Your task to perform on an android device: add a contact Image 0: 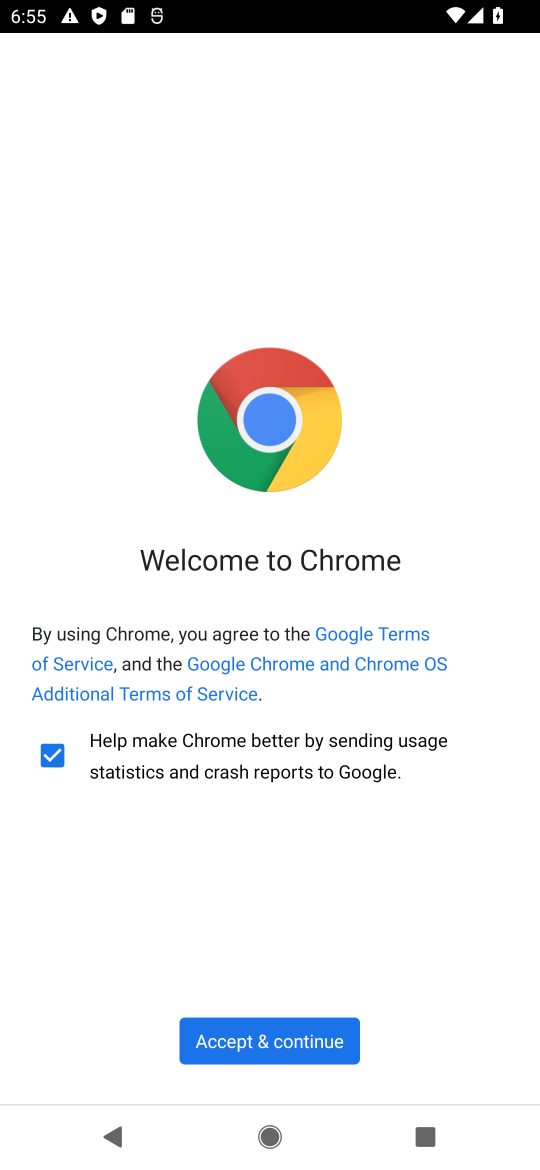
Step 0: press home button
Your task to perform on an android device: add a contact Image 1: 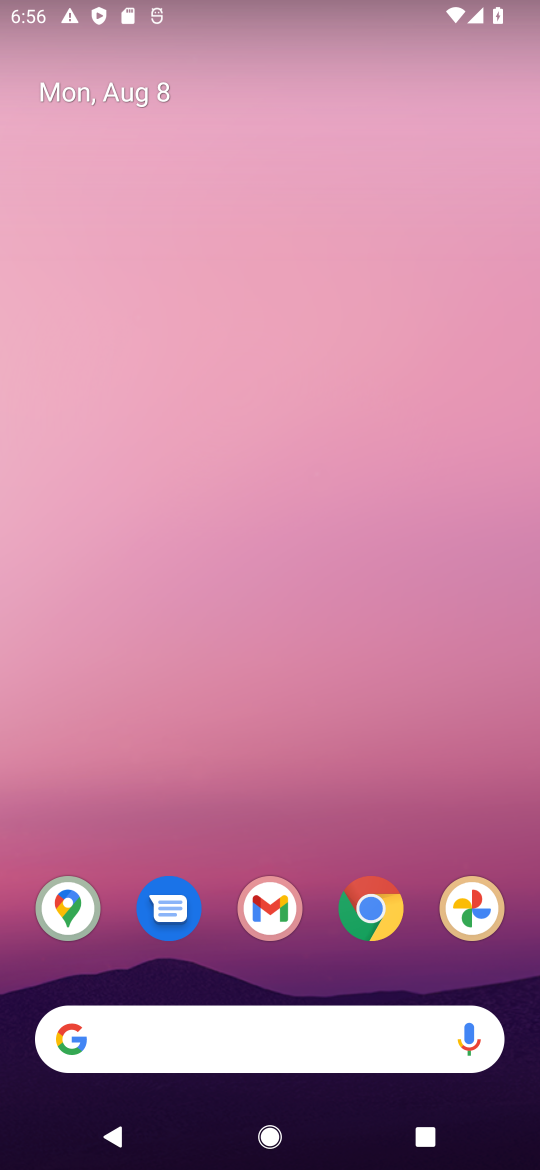
Step 1: drag from (232, 862) to (194, 246)
Your task to perform on an android device: add a contact Image 2: 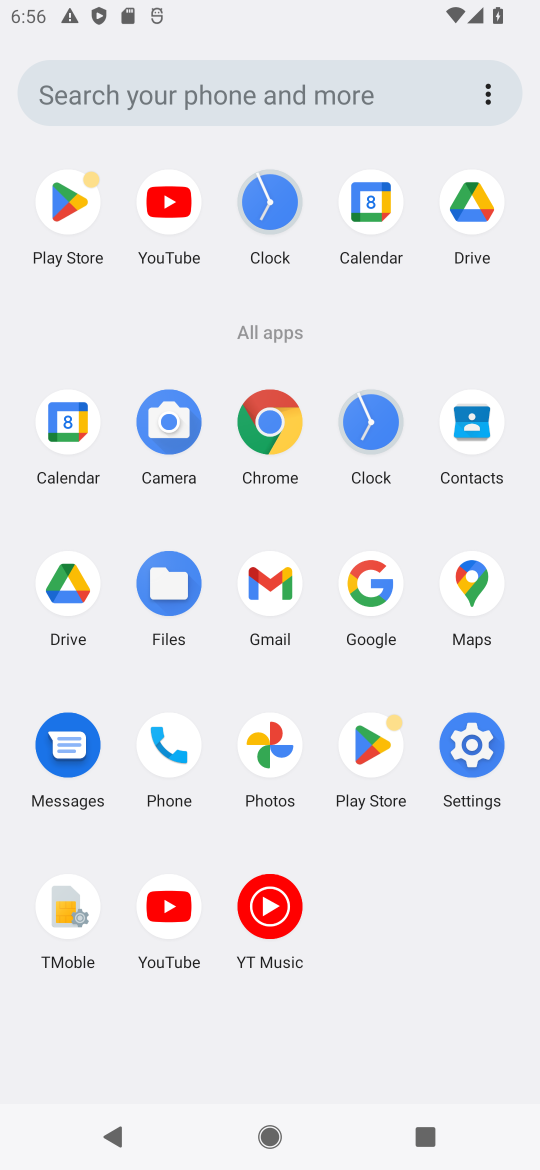
Step 2: click (482, 441)
Your task to perform on an android device: add a contact Image 3: 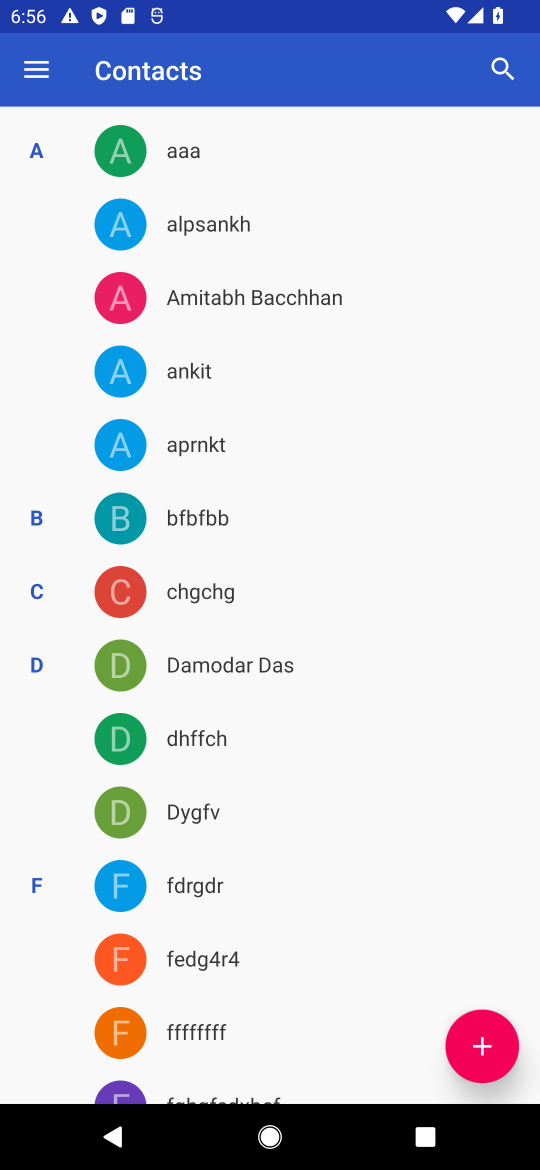
Step 3: click (476, 1060)
Your task to perform on an android device: add a contact Image 4: 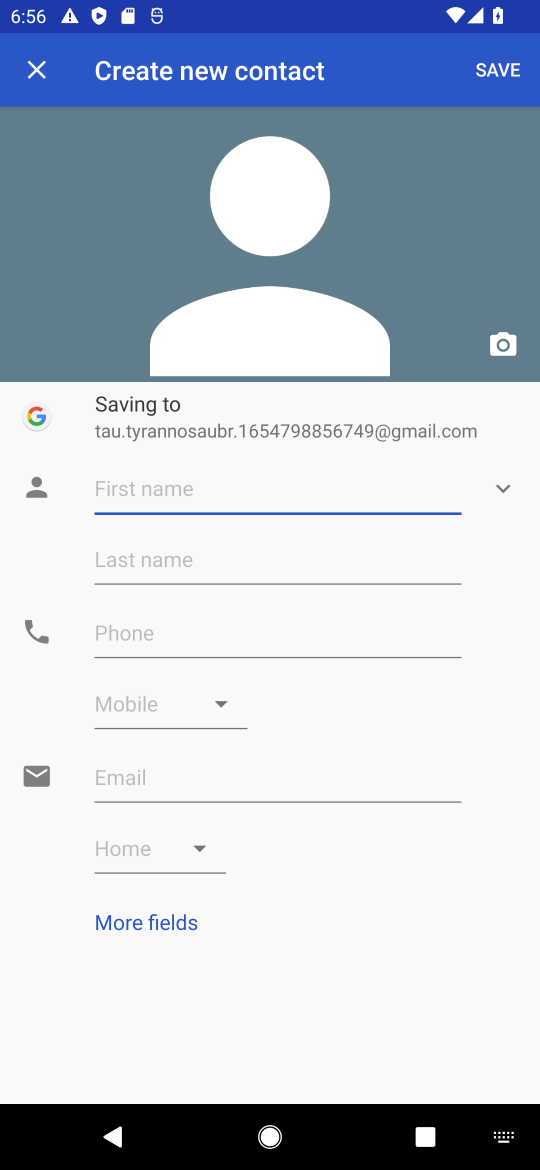
Step 4: type "poiuytgfrd"
Your task to perform on an android device: add a contact Image 5: 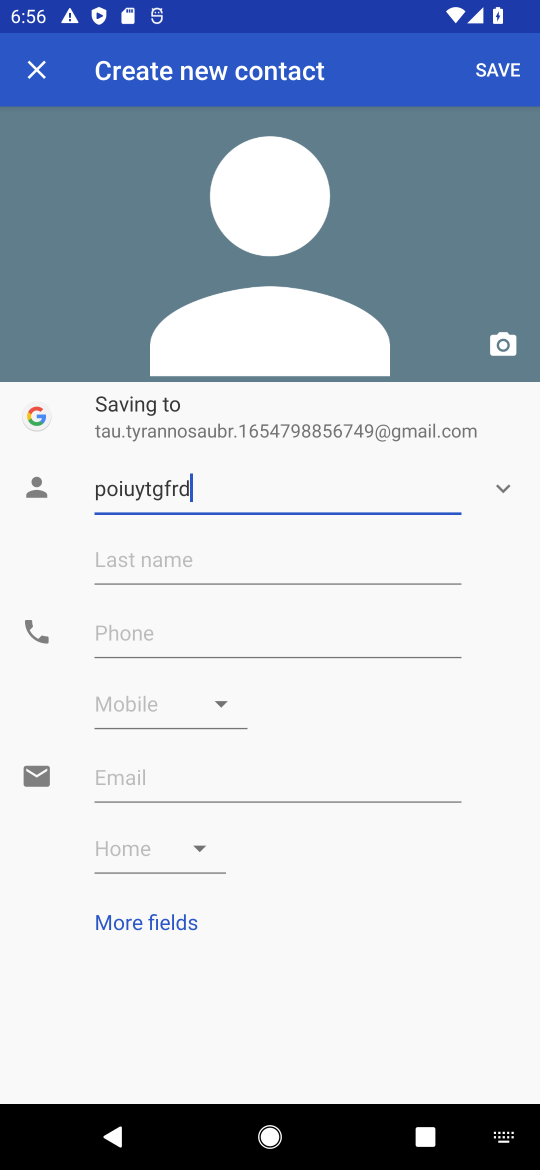
Step 5: click (141, 627)
Your task to perform on an android device: add a contact Image 6: 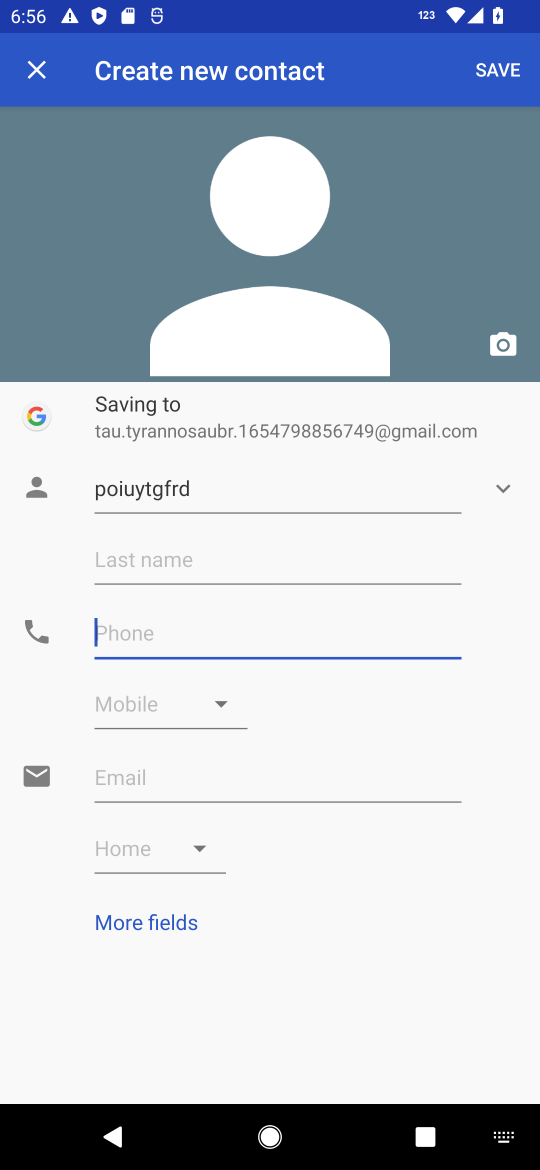
Step 6: type "456789098765"
Your task to perform on an android device: add a contact Image 7: 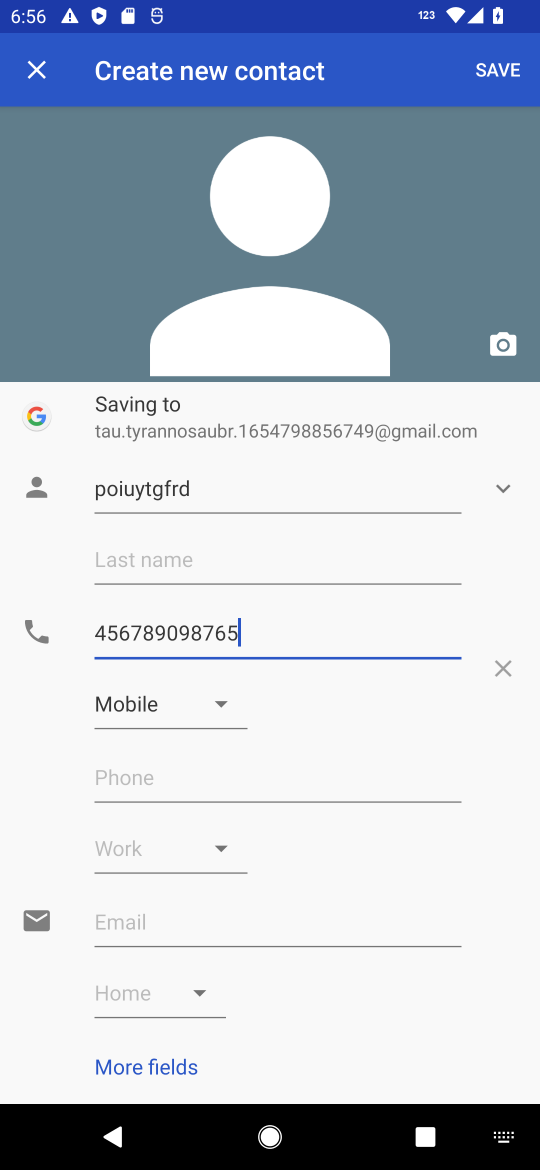
Step 7: click (476, 77)
Your task to perform on an android device: add a contact Image 8: 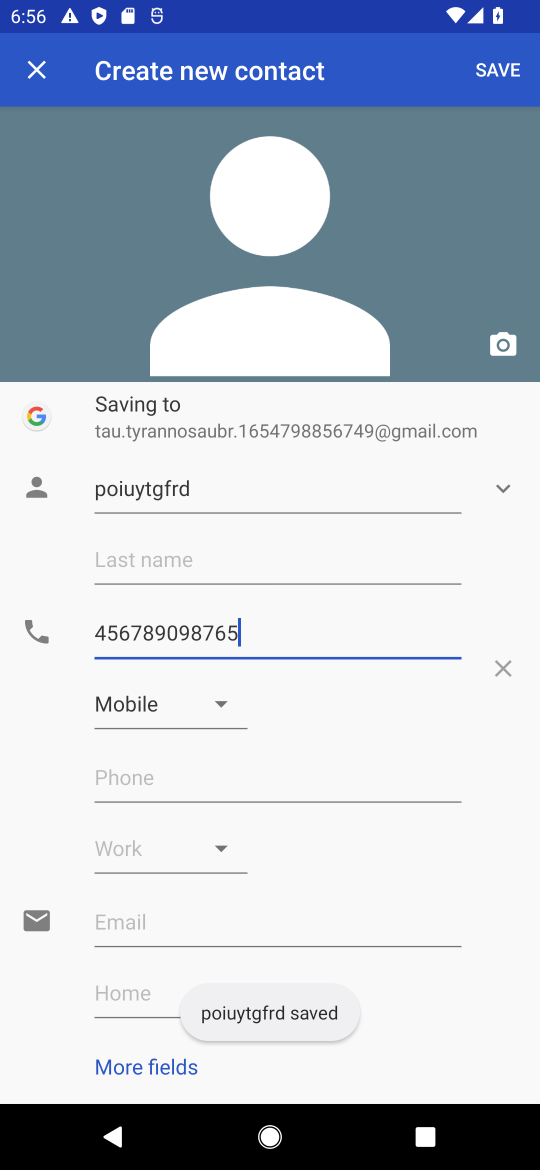
Step 8: click (476, 77)
Your task to perform on an android device: add a contact Image 9: 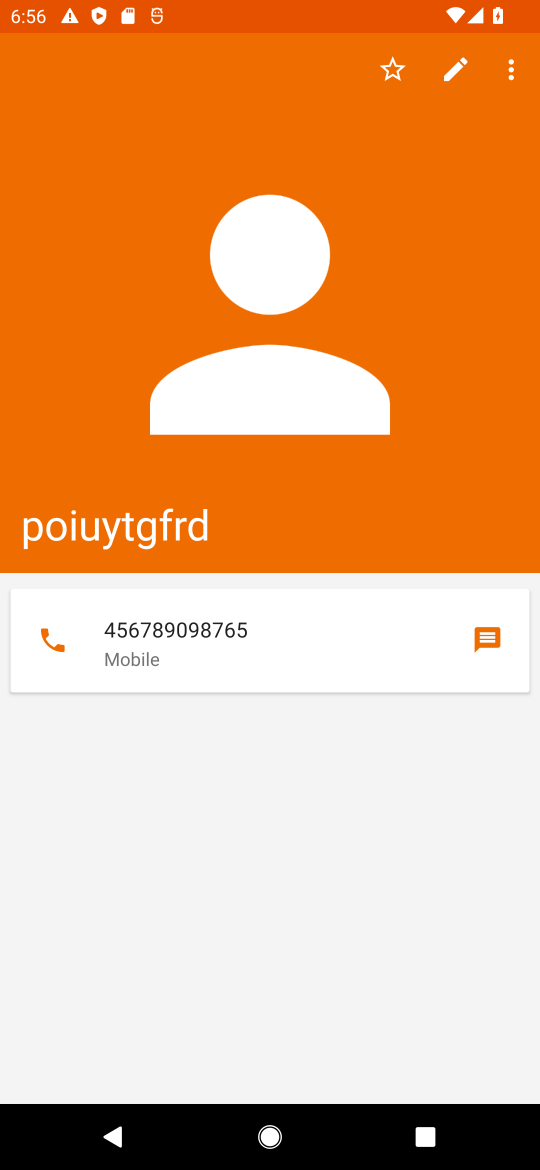
Step 9: task complete